Your task to perform on an android device: Open maps Image 0: 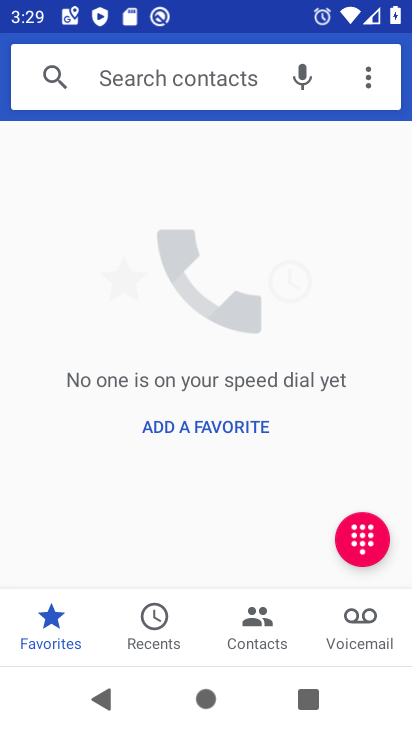
Step 0: press home button
Your task to perform on an android device: Open maps Image 1: 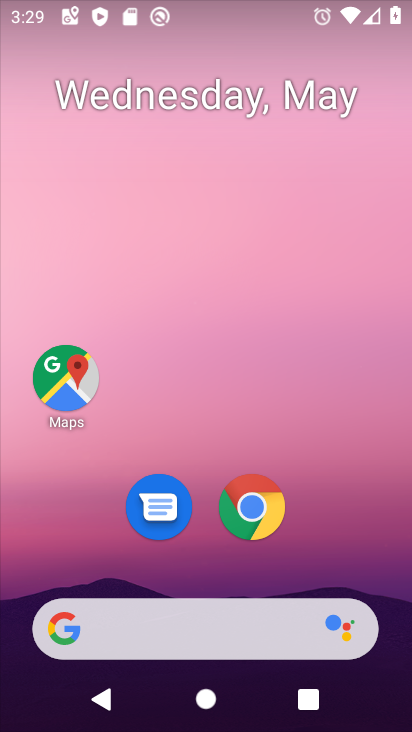
Step 1: click (75, 389)
Your task to perform on an android device: Open maps Image 2: 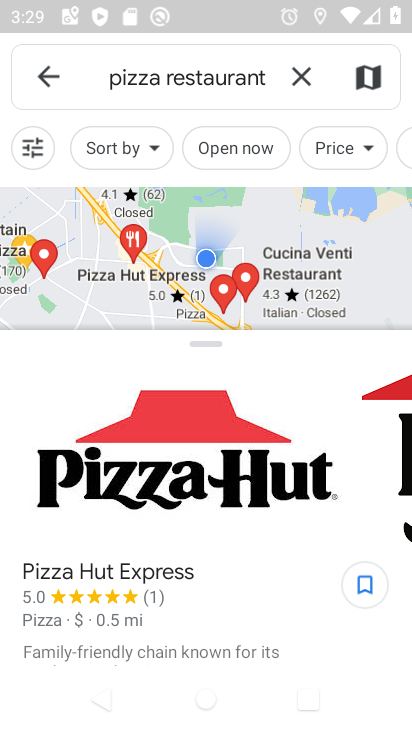
Step 2: task complete